Your task to perform on an android device: visit the assistant section in the google photos Image 0: 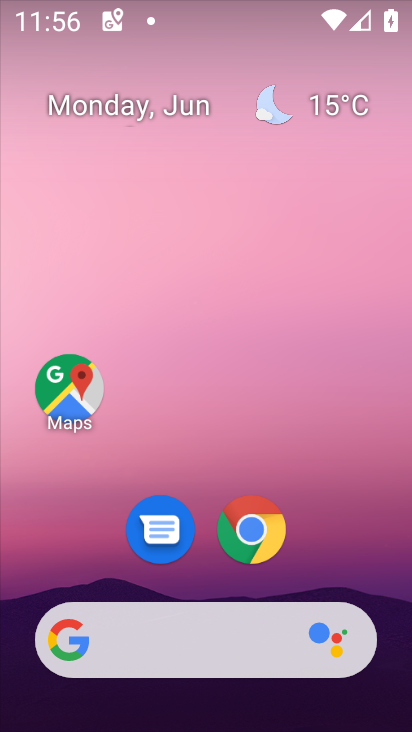
Step 0: drag from (92, 594) to (208, 115)
Your task to perform on an android device: visit the assistant section in the google photos Image 1: 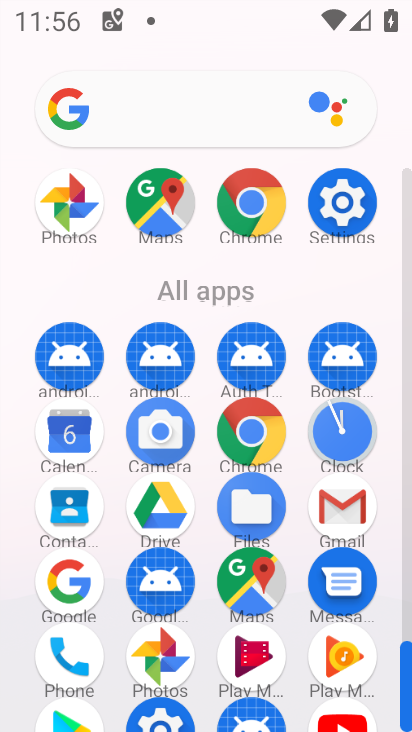
Step 1: drag from (177, 638) to (252, 389)
Your task to perform on an android device: visit the assistant section in the google photos Image 2: 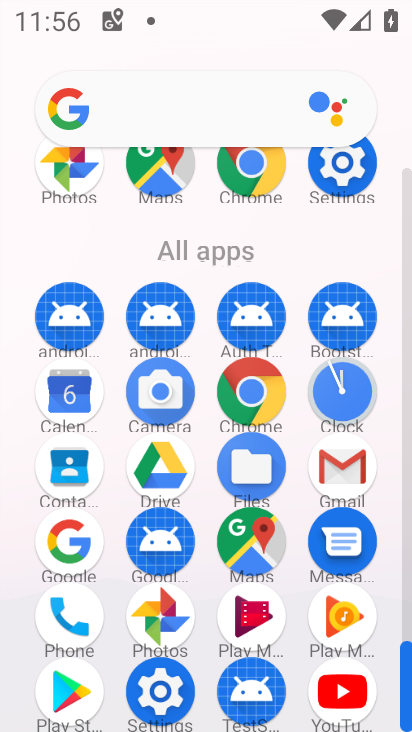
Step 2: click (174, 615)
Your task to perform on an android device: visit the assistant section in the google photos Image 3: 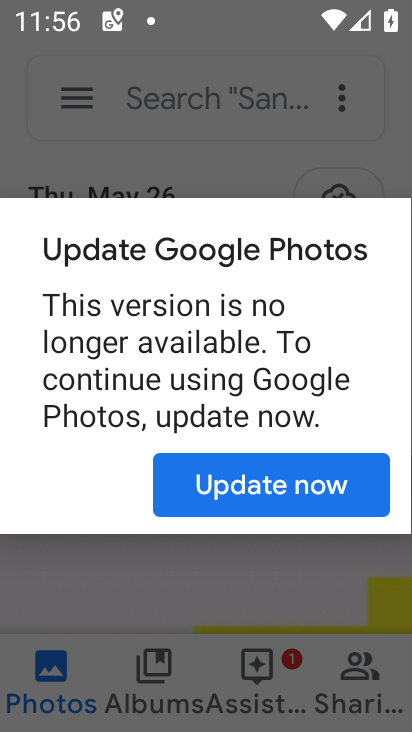
Step 3: click (284, 672)
Your task to perform on an android device: visit the assistant section in the google photos Image 4: 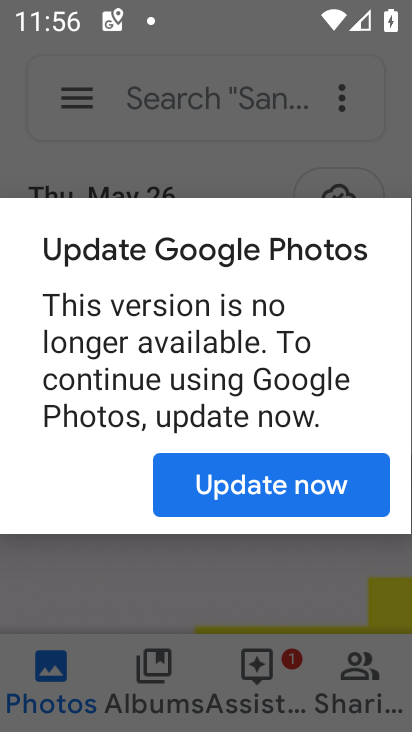
Step 4: click (332, 500)
Your task to perform on an android device: visit the assistant section in the google photos Image 5: 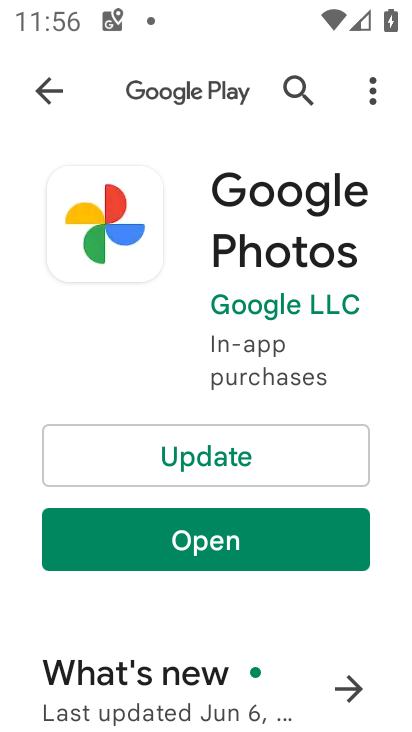
Step 5: click (265, 474)
Your task to perform on an android device: visit the assistant section in the google photos Image 6: 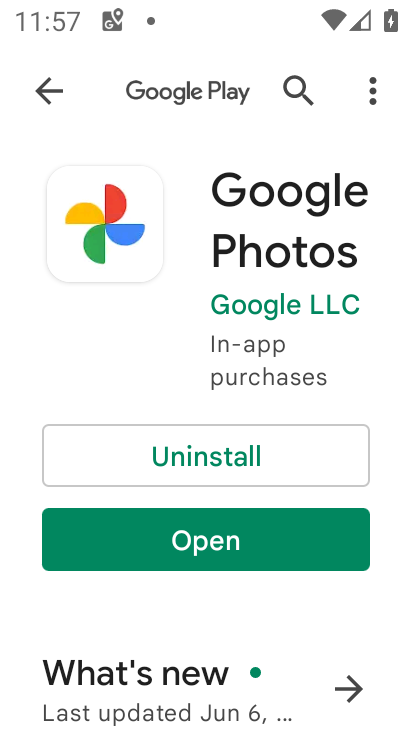
Step 6: click (231, 532)
Your task to perform on an android device: visit the assistant section in the google photos Image 7: 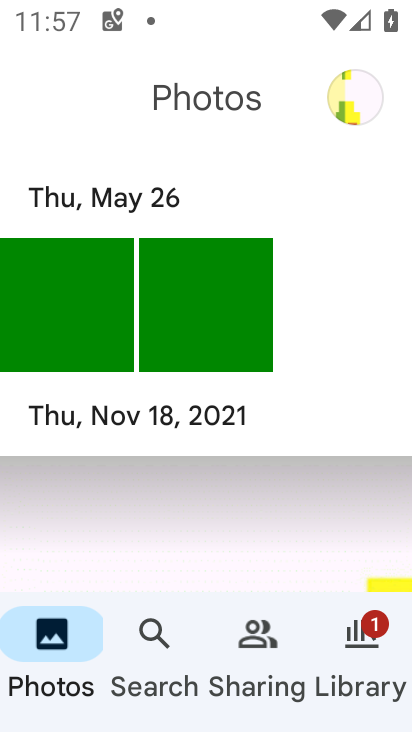
Step 7: task complete